Your task to perform on an android device: toggle translation in the chrome app Image 0: 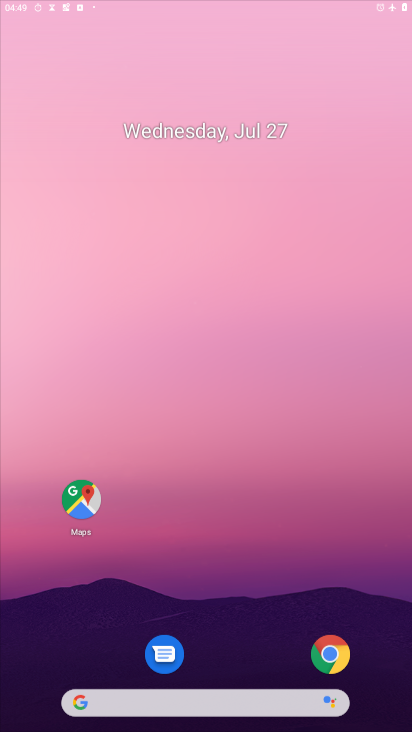
Step 0: press home button
Your task to perform on an android device: toggle translation in the chrome app Image 1: 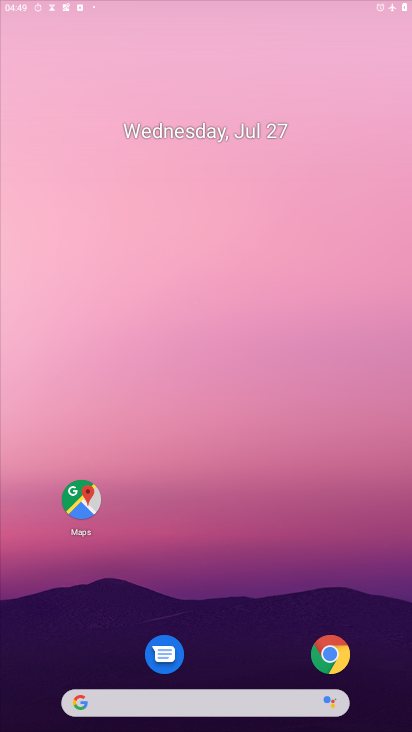
Step 1: drag from (290, 705) to (390, 52)
Your task to perform on an android device: toggle translation in the chrome app Image 2: 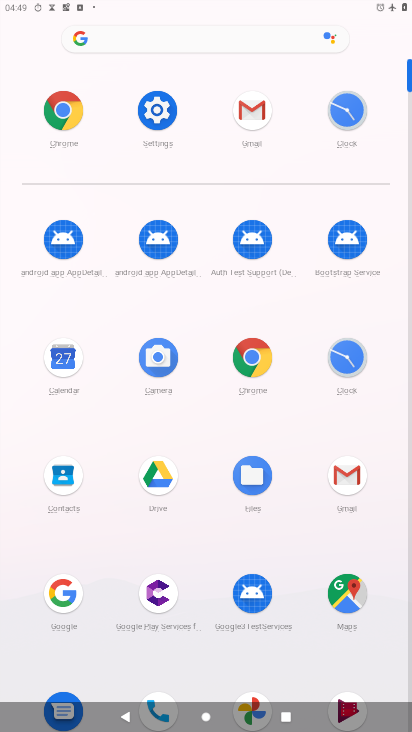
Step 2: click (247, 356)
Your task to perform on an android device: toggle translation in the chrome app Image 3: 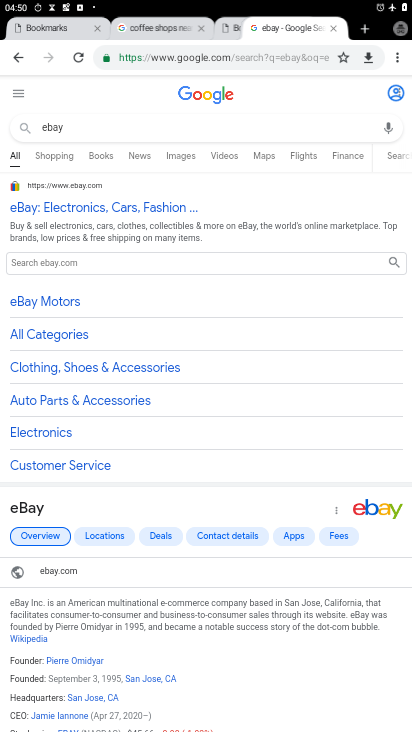
Step 3: click (397, 58)
Your task to perform on an android device: toggle translation in the chrome app Image 4: 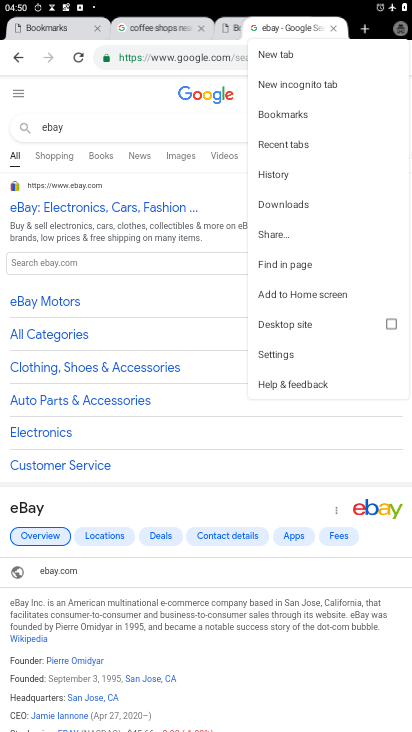
Step 4: click (287, 351)
Your task to perform on an android device: toggle translation in the chrome app Image 5: 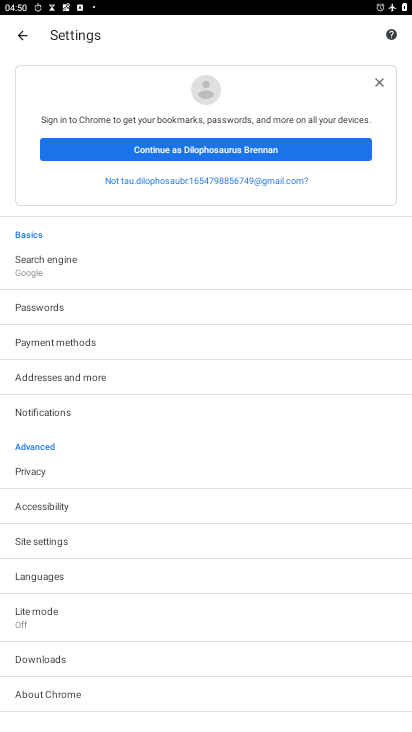
Step 5: click (66, 575)
Your task to perform on an android device: toggle translation in the chrome app Image 6: 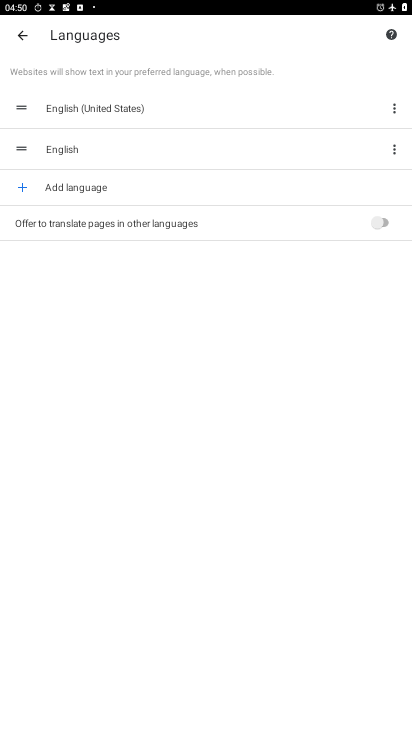
Step 6: click (387, 221)
Your task to perform on an android device: toggle translation in the chrome app Image 7: 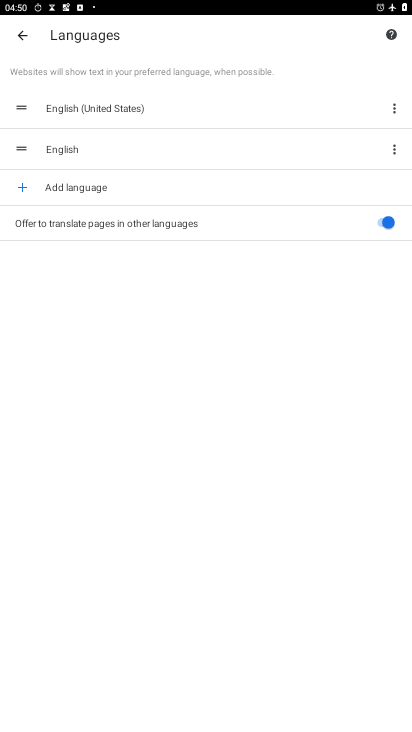
Step 7: task complete